Your task to perform on an android device: Open Google Image 0: 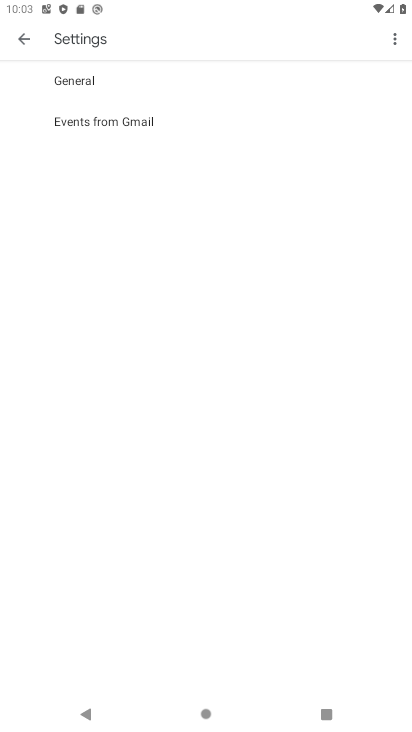
Step 0: press home button
Your task to perform on an android device: Open Google Image 1: 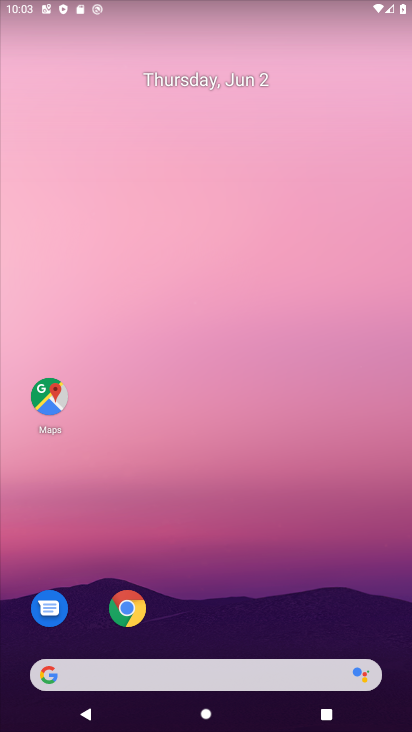
Step 1: click (162, 671)
Your task to perform on an android device: Open Google Image 2: 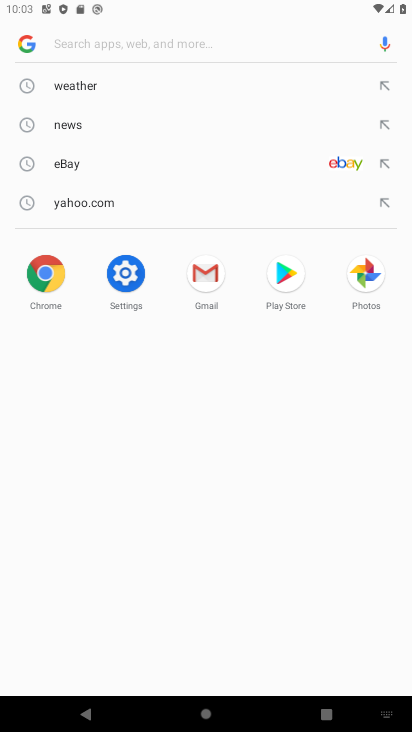
Step 2: task complete